Your task to perform on an android device: Go to Google Image 0: 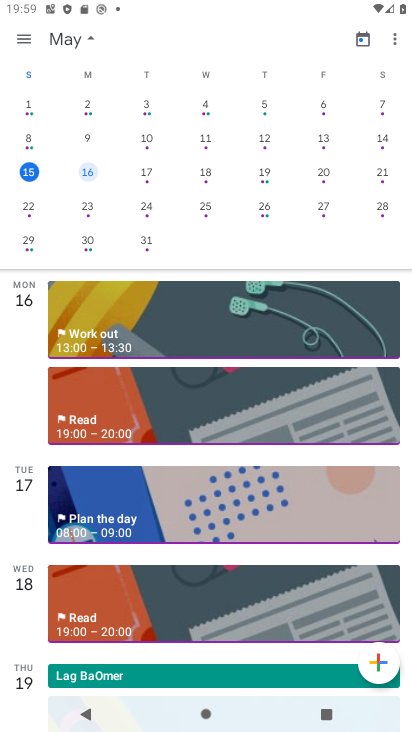
Step 0: press home button
Your task to perform on an android device: Go to Google Image 1: 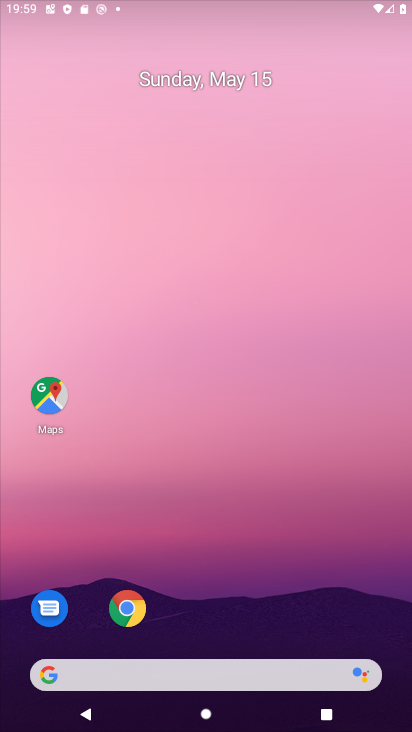
Step 1: drag from (238, 561) to (305, 75)
Your task to perform on an android device: Go to Google Image 2: 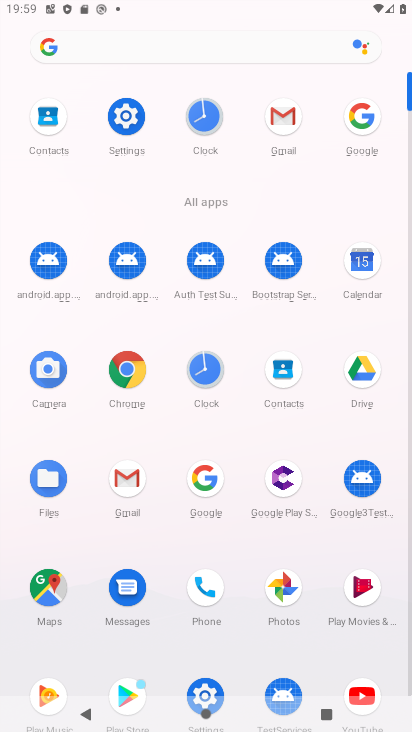
Step 2: click (208, 484)
Your task to perform on an android device: Go to Google Image 3: 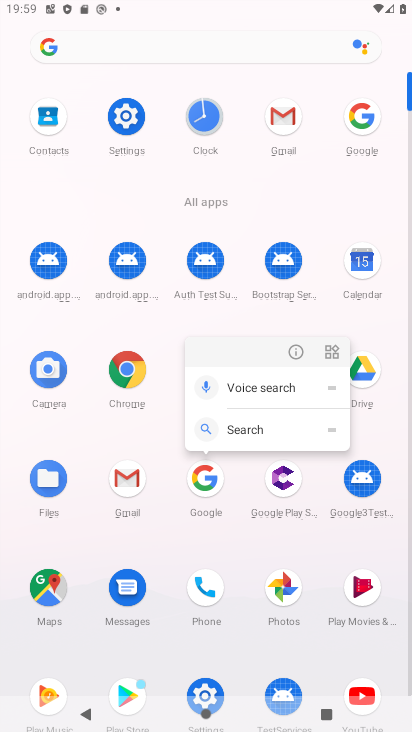
Step 3: click (207, 481)
Your task to perform on an android device: Go to Google Image 4: 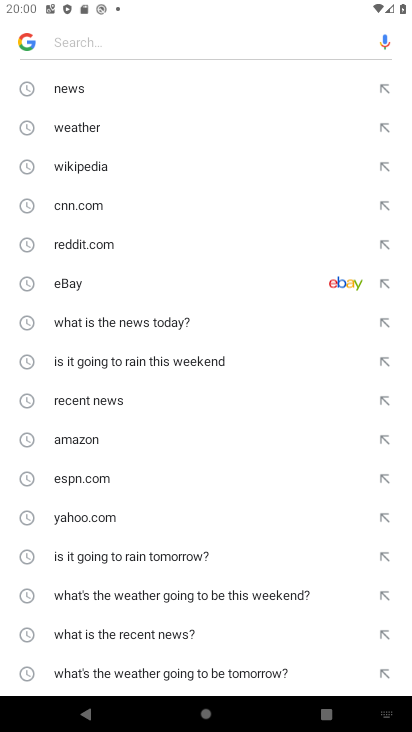
Step 4: task complete